Your task to perform on an android device: delete browsing data in the chrome app Image 0: 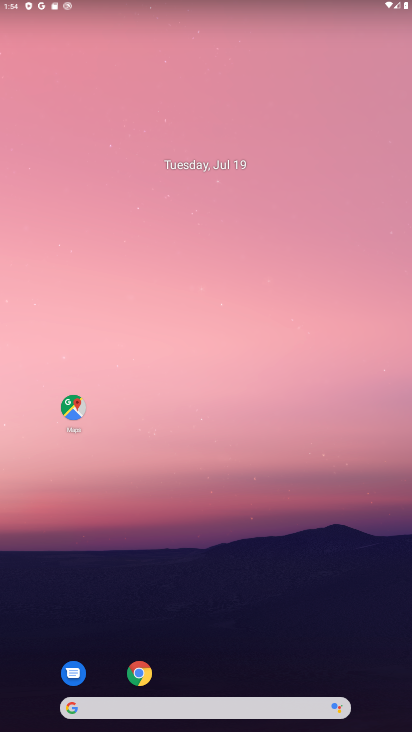
Step 0: drag from (245, 648) to (214, 121)
Your task to perform on an android device: delete browsing data in the chrome app Image 1: 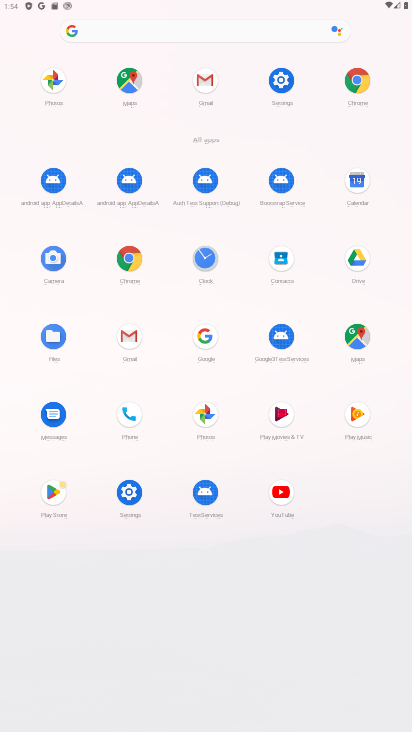
Step 1: click (353, 89)
Your task to perform on an android device: delete browsing data in the chrome app Image 2: 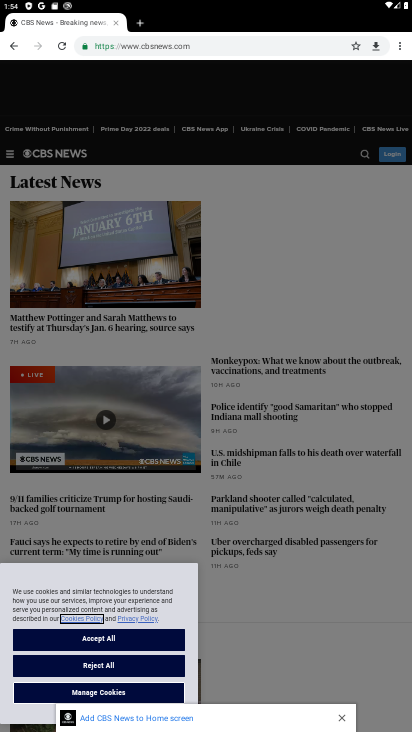
Step 2: click (401, 53)
Your task to perform on an android device: delete browsing data in the chrome app Image 3: 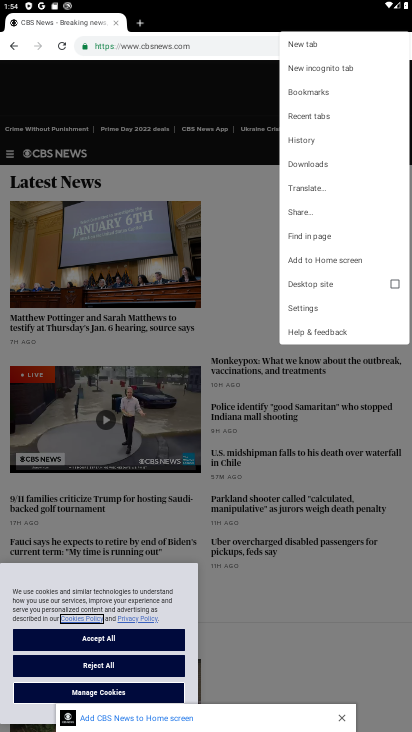
Step 3: click (303, 138)
Your task to perform on an android device: delete browsing data in the chrome app Image 4: 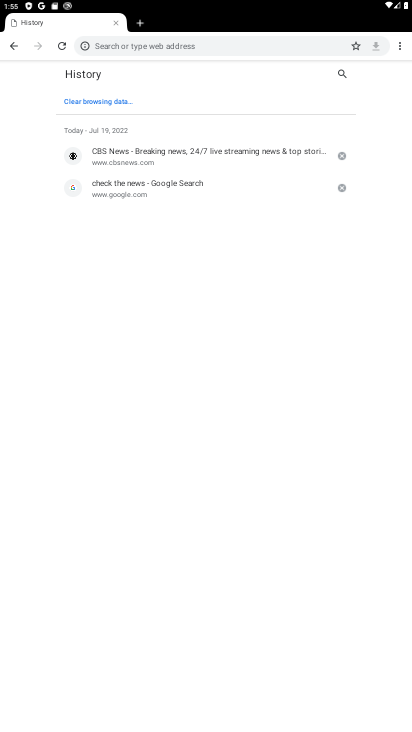
Step 4: click (114, 101)
Your task to perform on an android device: delete browsing data in the chrome app Image 5: 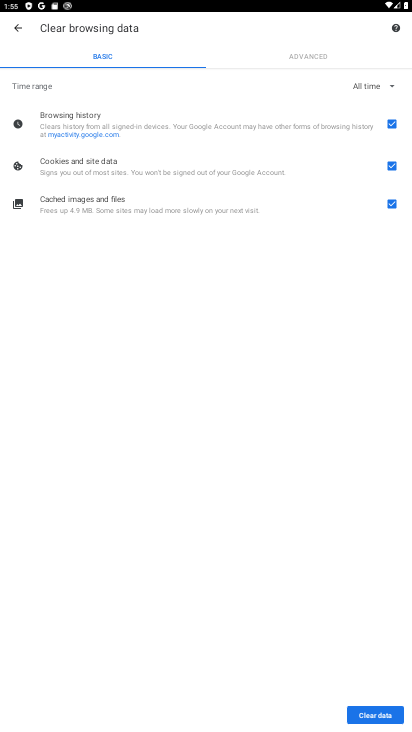
Step 5: click (394, 198)
Your task to perform on an android device: delete browsing data in the chrome app Image 6: 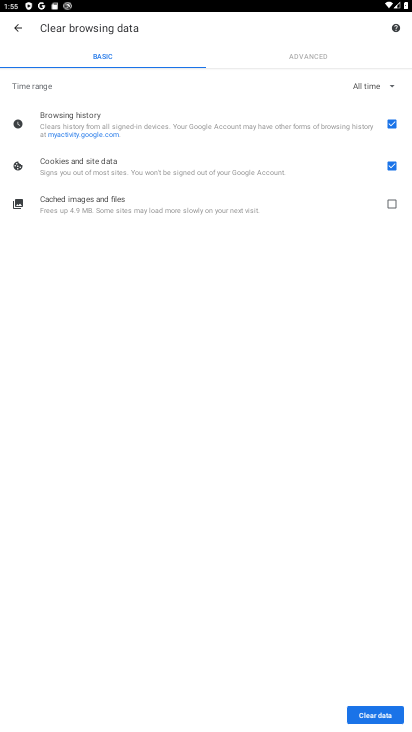
Step 6: click (388, 163)
Your task to perform on an android device: delete browsing data in the chrome app Image 7: 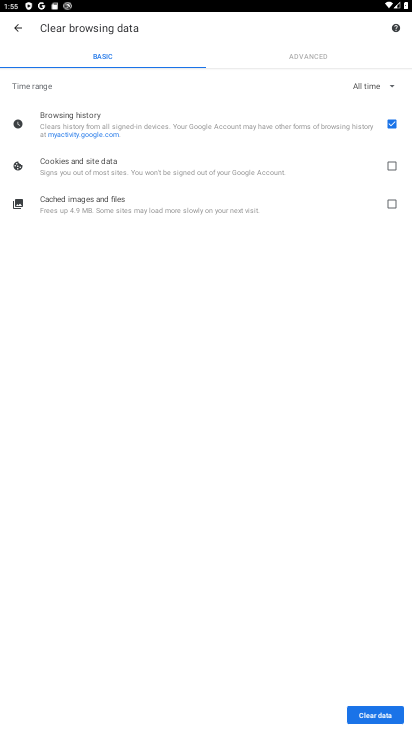
Step 7: click (372, 720)
Your task to perform on an android device: delete browsing data in the chrome app Image 8: 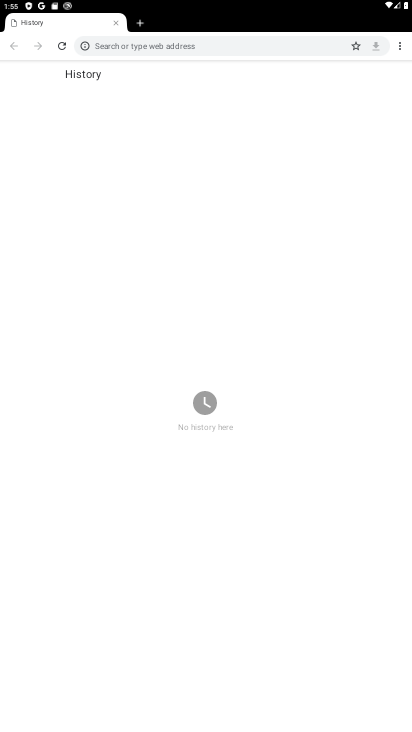
Step 8: task complete